Your task to perform on an android device: Go to display settings Image 0: 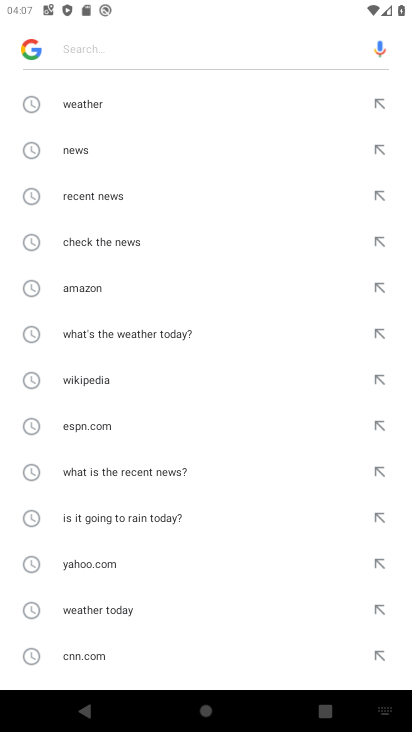
Step 0: press home button
Your task to perform on an android device: Go to display settings Image 1: 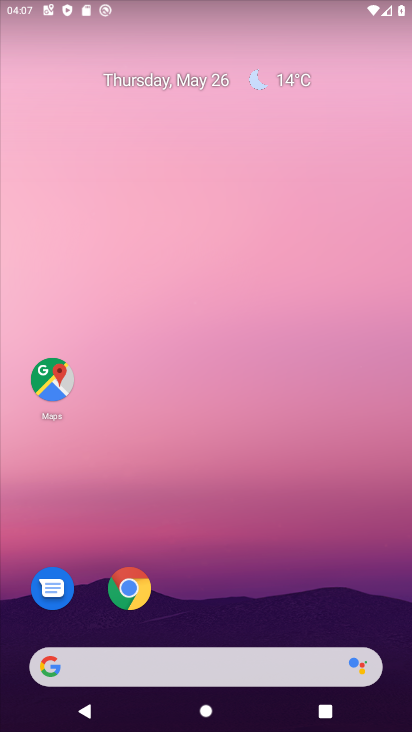
Step 1: drag from (249, 602) to (295, 180)
Your task to perform on an android device: Go to display settings Image 2: 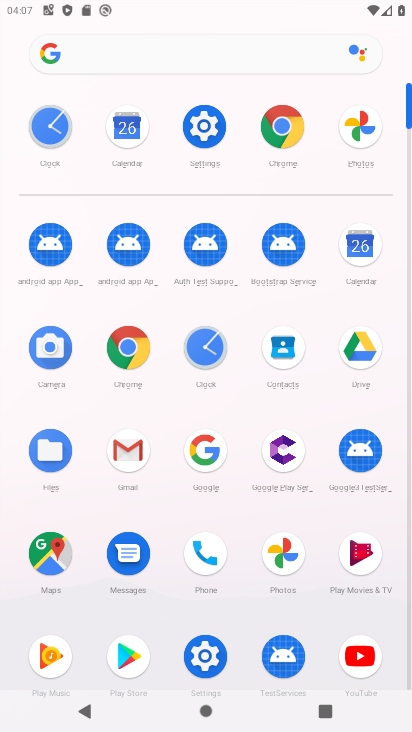
Step 2: click (218, 145)
Your task to perform on an android device: Go to display settings Image 3: 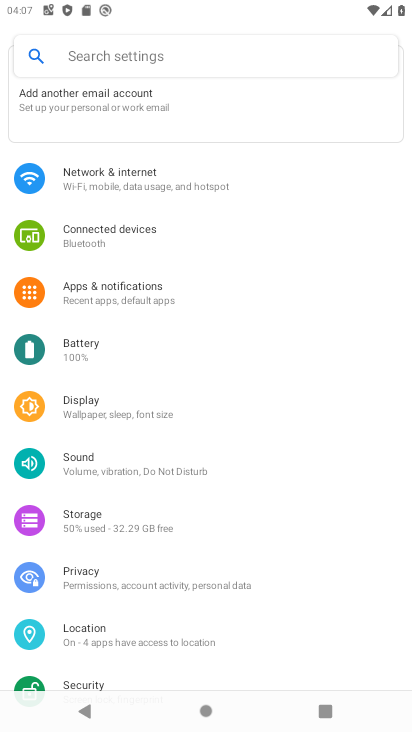
Step 3: click (183, 406)
Your task to perform on an android device: Go to display settings Image 4: 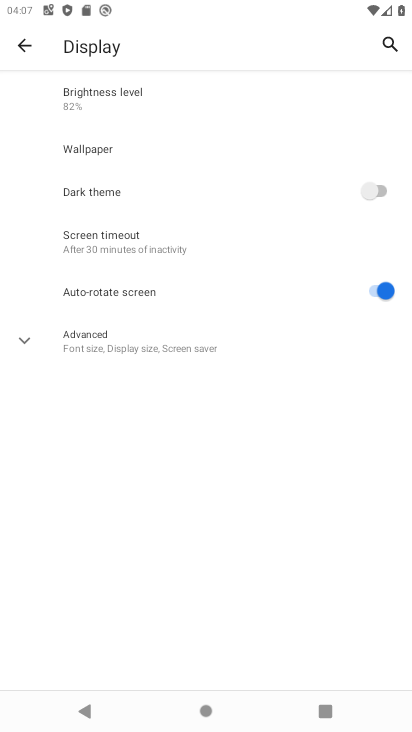
Step 4: task complete